Your task to perform on an android device: make emails show in primary in the gmail app Image 0: 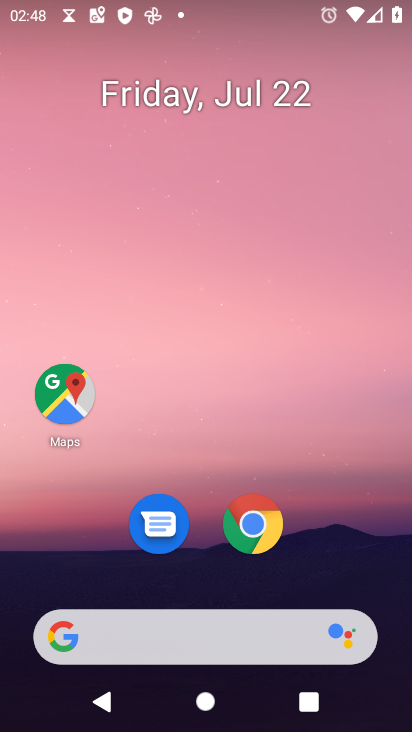
Step 0: press home button
Your task to perform on an android device: make emails show in primary in the gmail app Image 1: 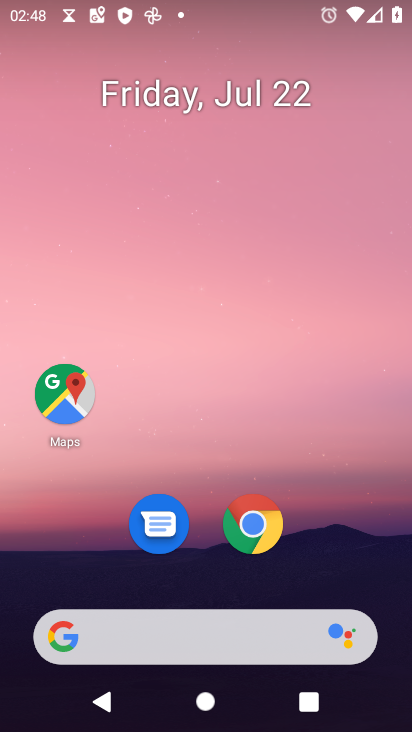
Step 1: drag from (212, 623) to (301, 182)
Your task to perform on an android device: make emails show in primary in the gmail app Image 2: 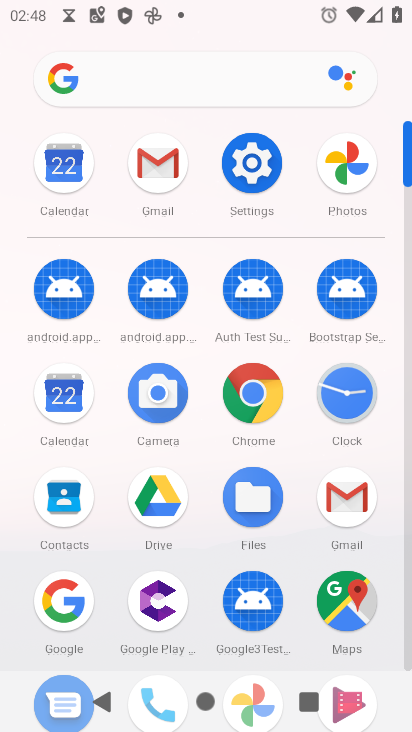
Step 2: click (165, 172)
Your task to perform on an android device: make emails show in primary in the gmail app Image 3: 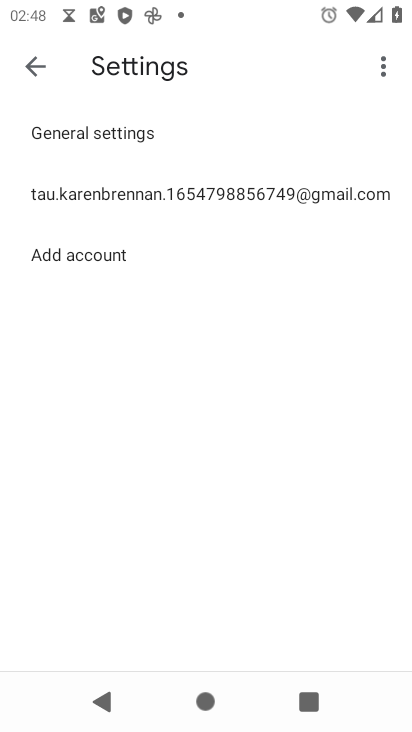
Step 3: click (152, 198)
Your task to perform on an android device: make emails show in primary in the gmail app Image 4: 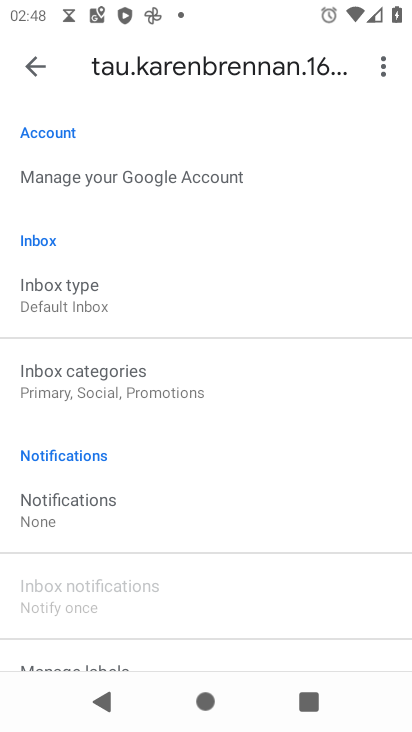
Step 4: click (114, 385)
Your task to perform on an android device: make emails show in primary in the gmail app Image 5: 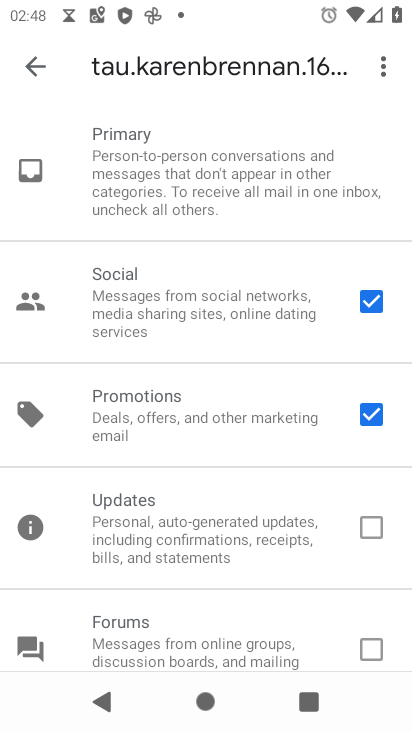
Step 5: click (362, 299)
Your task to perform on an android device: make emails show in primary in the gmail app Image 6: 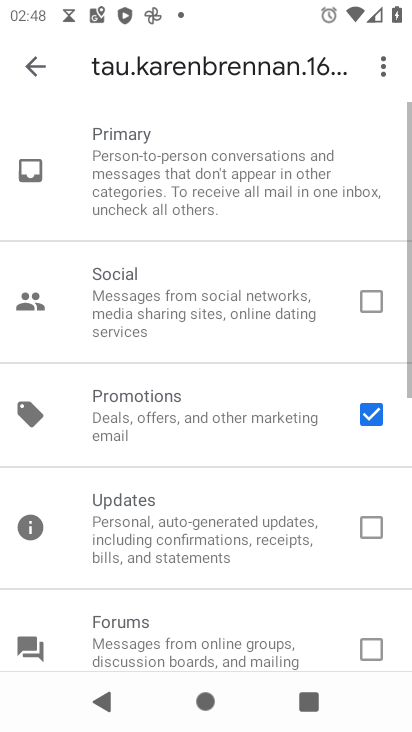
Step 6: click (372, 410)
Your task to perform on an android device: make emails show in primary in the gmail app Image 7: 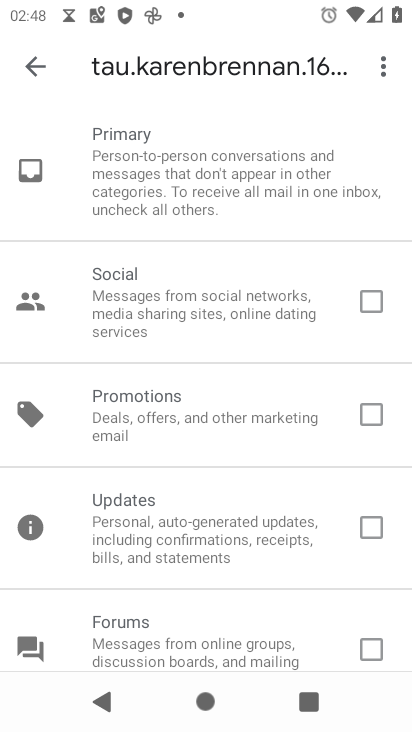
Step 7: click (28, 65)
Your task to perform on an android device: make emails show in primary in the gmail app Image 8: 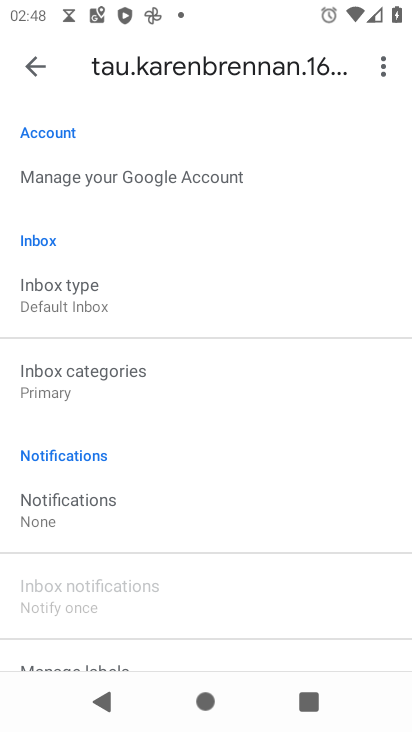
Step 8: task complete